Your task to perform on an android device: Open network settings Image 0: 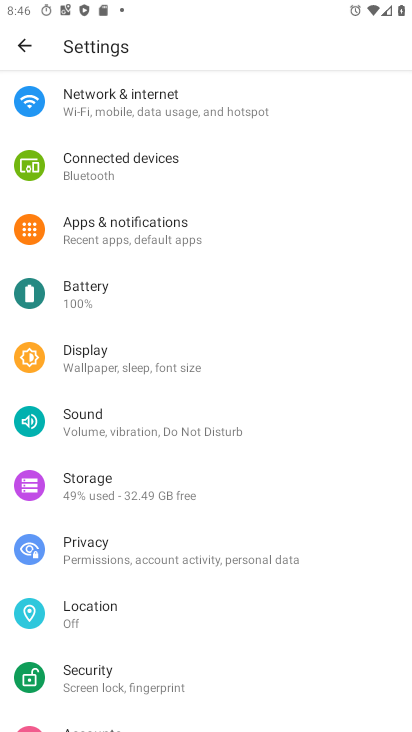
Step 0: press home button
Your task to perform on an android device: Open network settings Image 1: 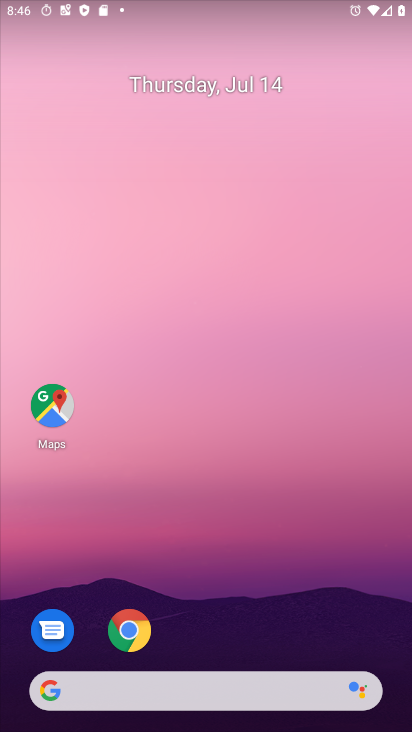
Step 1: drag from (210, 710) to (208, 84)
Your task to perform on an android device: Open network settings Image 2: 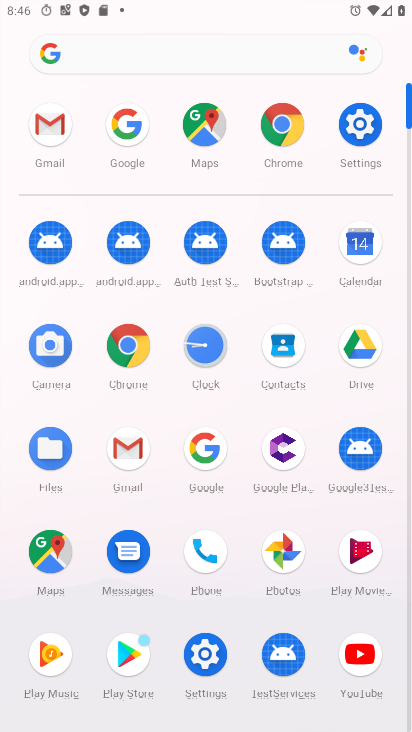
Step 2: click (364, 126)
Your task to perform on an android device: Open network settings Image 3: 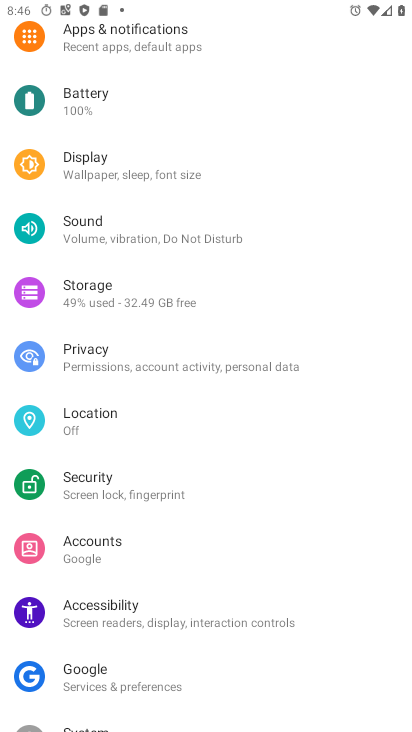
Step 3: drag from (120, 109) to (116, 548)
Your task to perform on an android device: Open network settings Image 4: 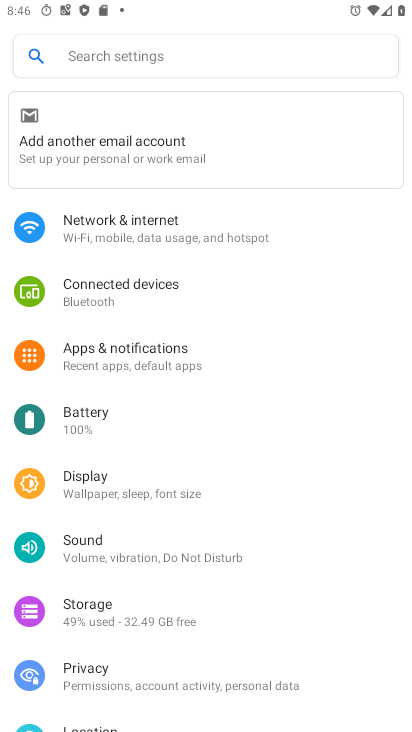
Step 4: click (95, 231)
Your task to perform on an android device: Open network settings Image 5: 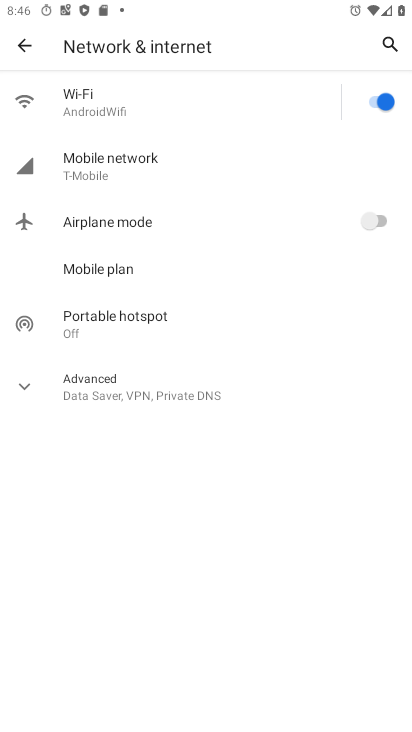
Step 5: click (98, 159)
Your task to perform on an android device: Open network settings Image 6: 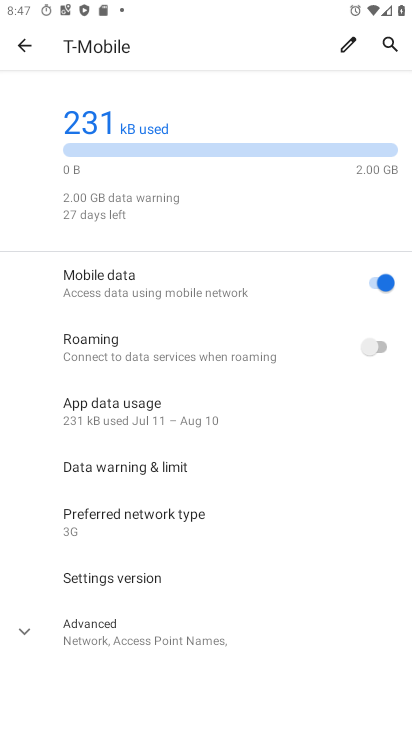
Step 6: task complete